Your task to perform on an android device: Open battery settings Image 0: 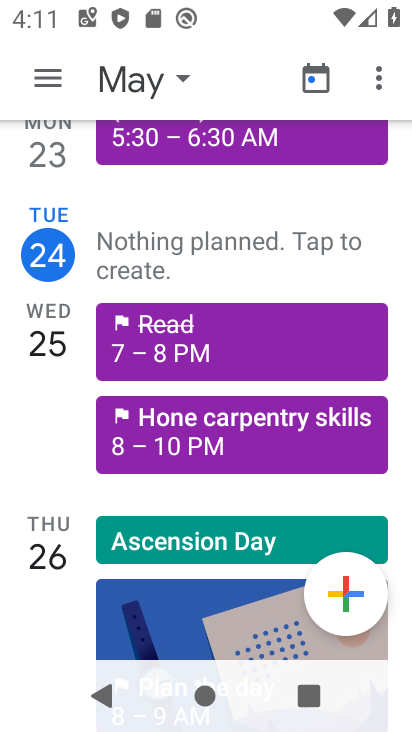
Step 0: press home button
Your task to perform on an android device: Open battery settings Image 1: 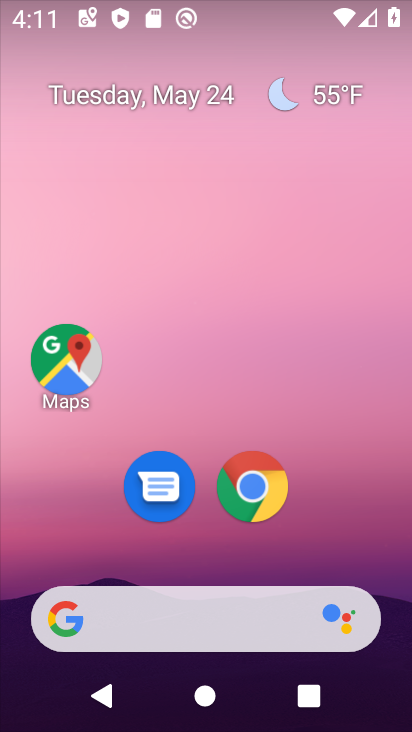
Step 1: drag from (284, 523) to (184, 34)
Your task to perform on an android device: Open battery settings Image 2: 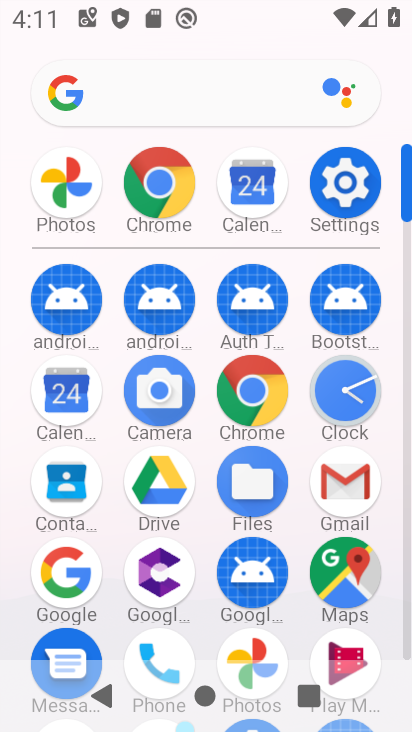
Step 2: click (343, 184)
Your task to perform on an android device: Open battery settings Image 3: 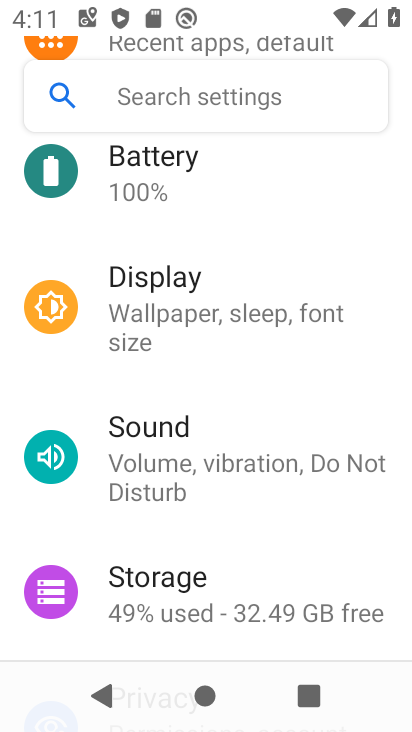
Step 3: click (192, 192)
Your task to perform on an android device: Open battery settings Image 4: 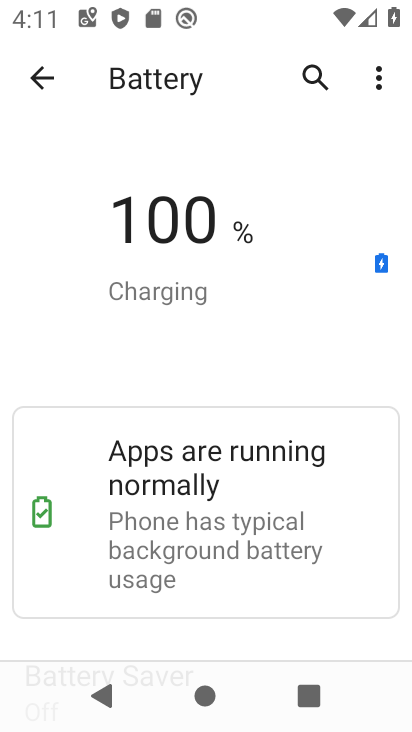
Step 4: task complete